Your task to perform on an android device: turn on wifi Image 0: 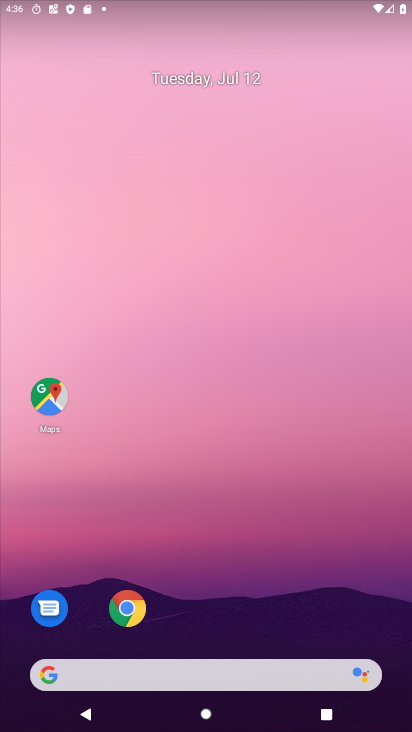
Step 0: drag from (280, 636) to (225, 62)
Your task to perform on an android device: turn on wifi Image 1: 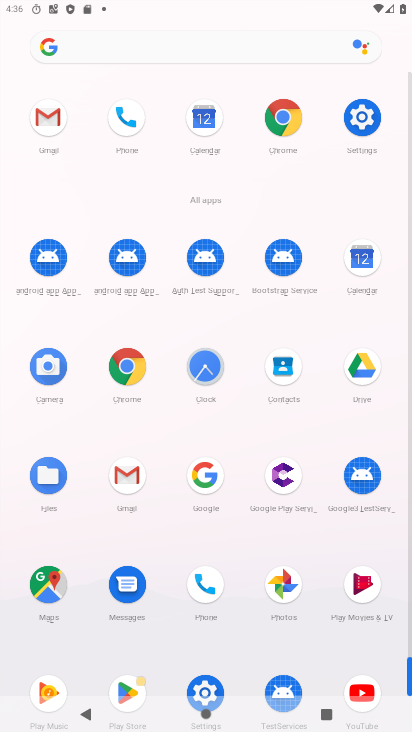
Step 1: click (358, 121)
Your task to perform on an android device: turn on wifi Image 2: 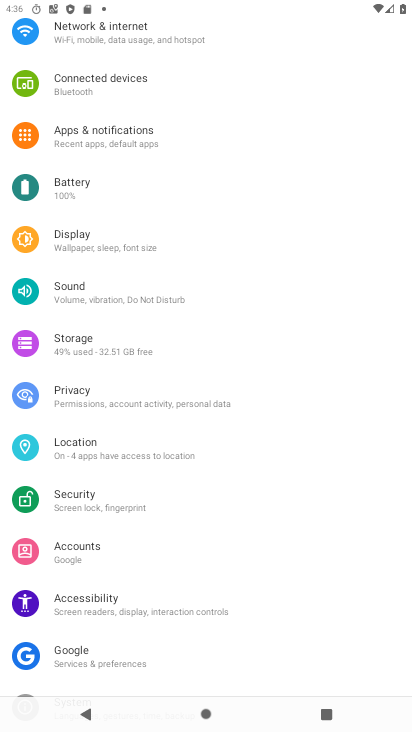
Step 2: click (192, 36)
Your task to perform on an android device: turn on wifi Image 3: 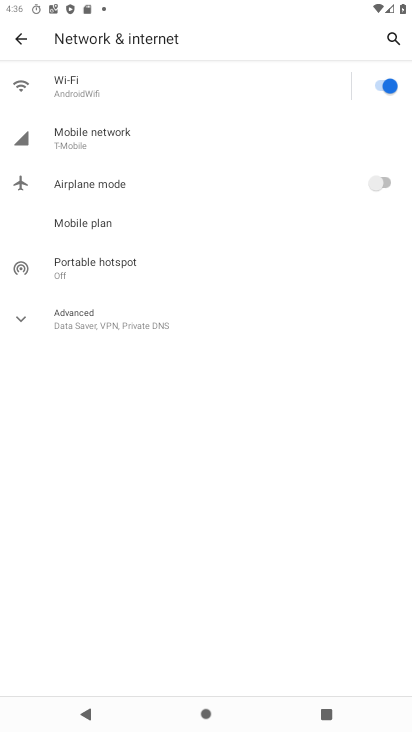
Step 3: task complete